Your task to perform on an android device: Open Amazon Image 0: 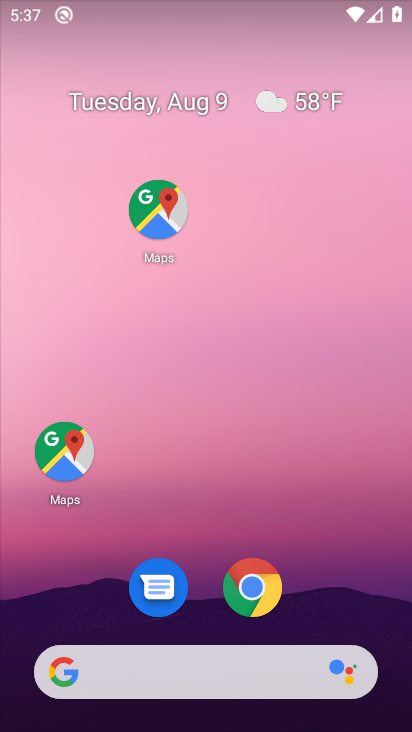
Step 0: drag from (250, 694) to (207, 10)
Your task to perform on an android device: Open Amazon Image 1: 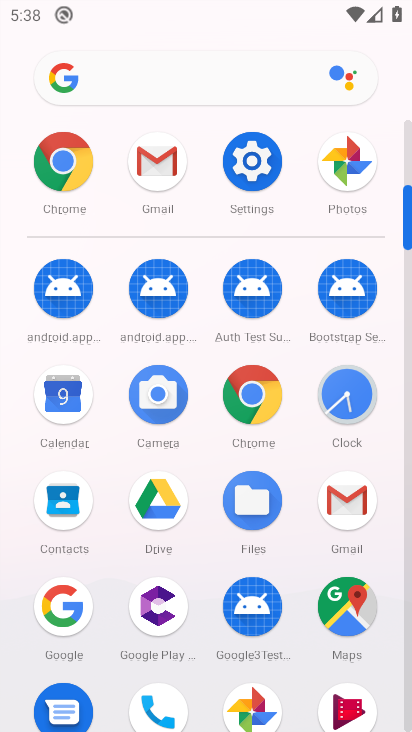
Step 1: click (250, 403)
Your task to perform on an android device: Open Amazon Image 2: 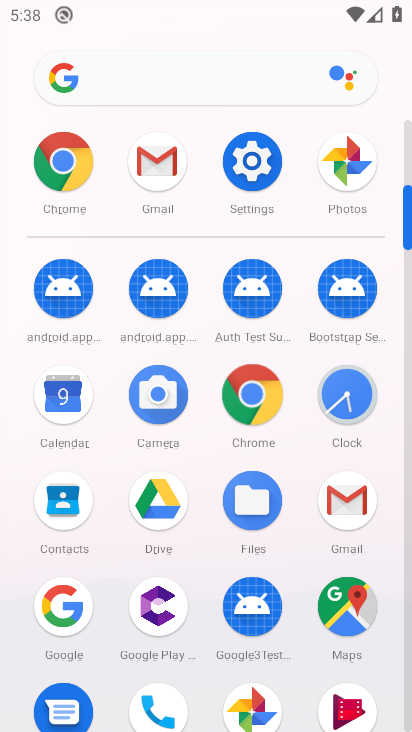
Step 2: click (250, 403)
Your task to perform on an android device: Open Amazon Image 3: 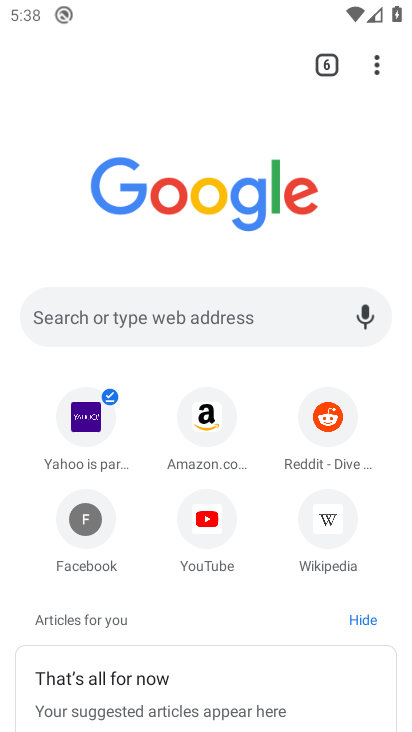
Step 3: click (202, 427)
Your task to perform on an android device: Open Amazon Image 4: 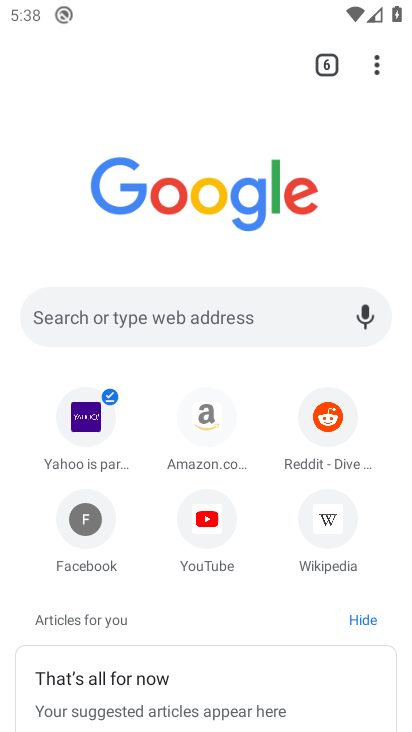
Step 4: click (198, 428)
Your task to perform on an android device: Open Amazon Image 5: 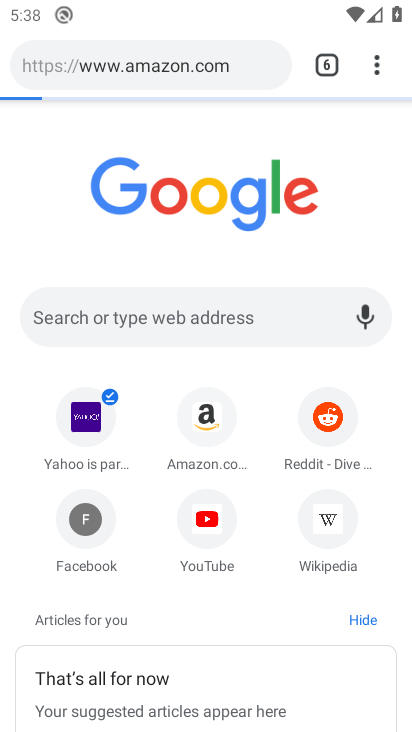
Step 5: click (198, 429)
Your task to perform on an android device: Open Amazon Image 6: 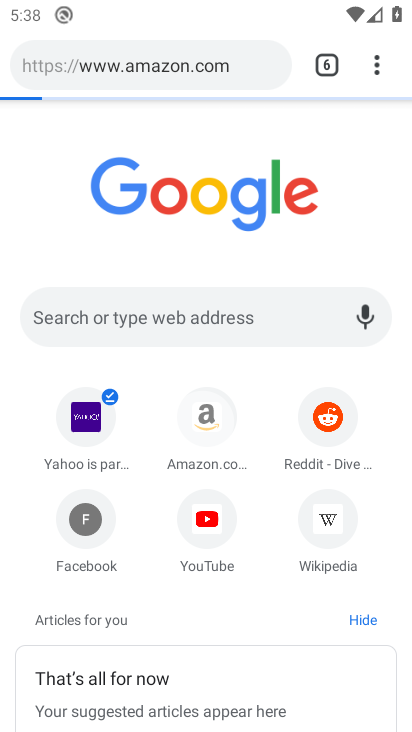
Step 6: click (202, 430)
Your task to perform on an android device: Open Amazon Image 7: 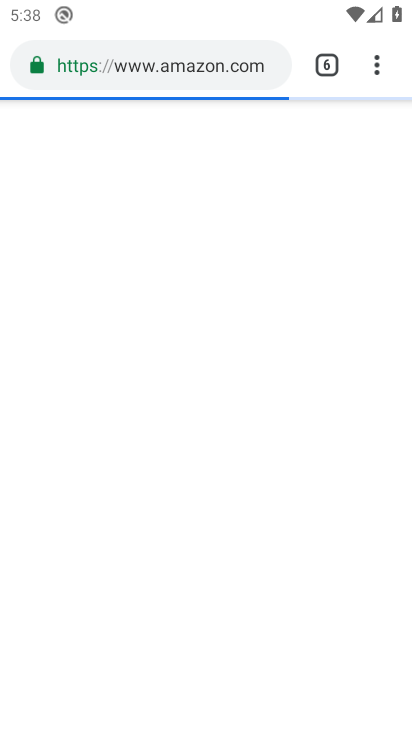
Step 7: task complete